Your task to perform on an android device: turn off notifications settings in the gmail app Image 0: 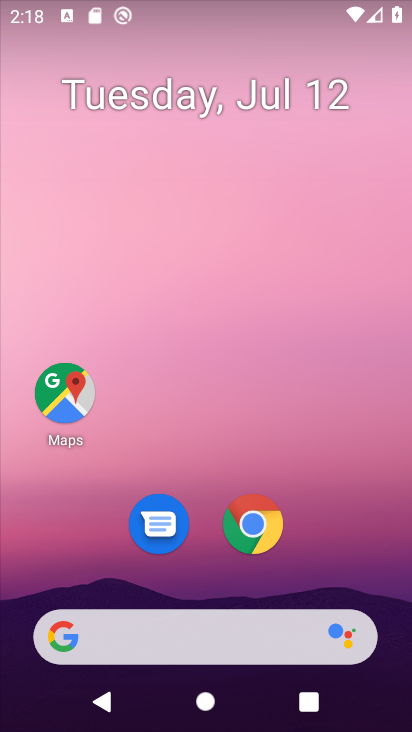
Step 0: drag from (322, 542) to (276, 55)
Your task to perform on an android device: turn off notifications settings in the gmail app Image 1: 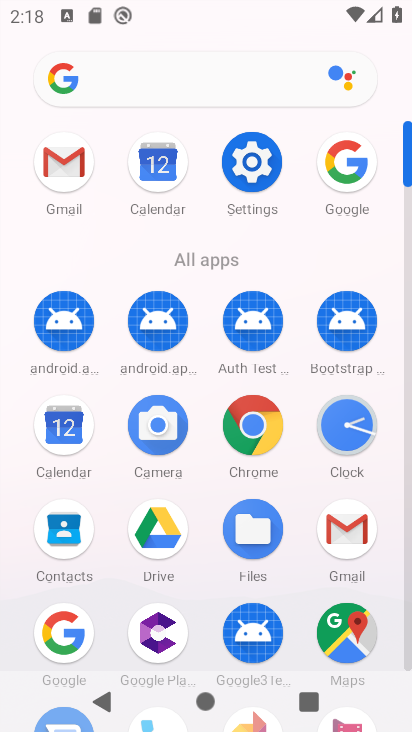
Step 1: click (50, 166)
Your task to perform on an android device: turn off notifications settings in the gmail app Image 2: 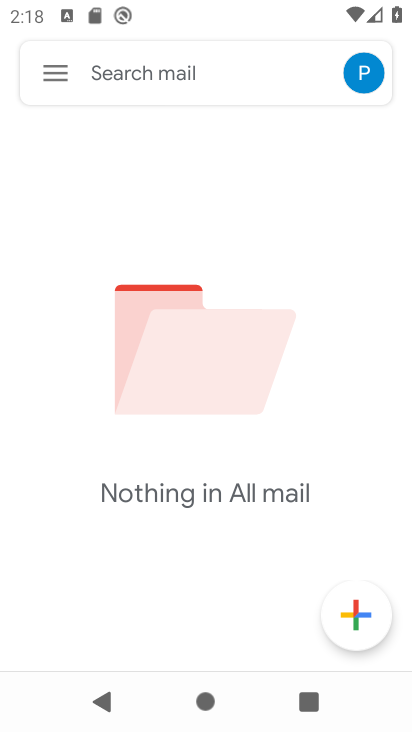
Step 2: click (59, 70)
Your task to perform on an android device: turn off notifications settings in the gmail app Image 3: 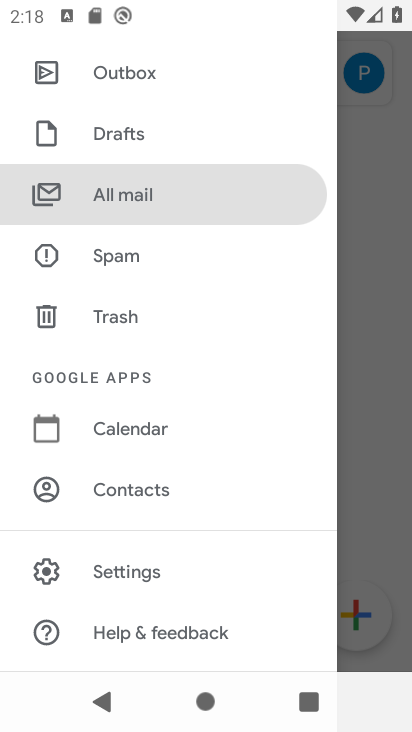
Step 3: click (139, 579)
Your task to perform on an android device: turn off notifications settings in the gmail app Image 4: 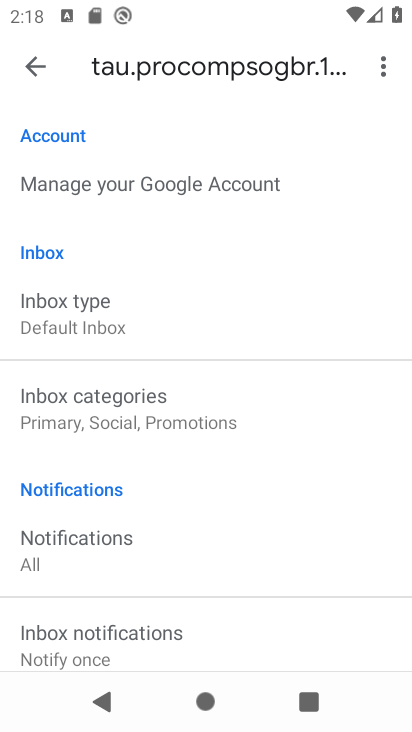
Step 4: drag from (162, 509) to (216, 129)
Your task to perform on an android device: turn off notifications settings in the gmail app Image 5: 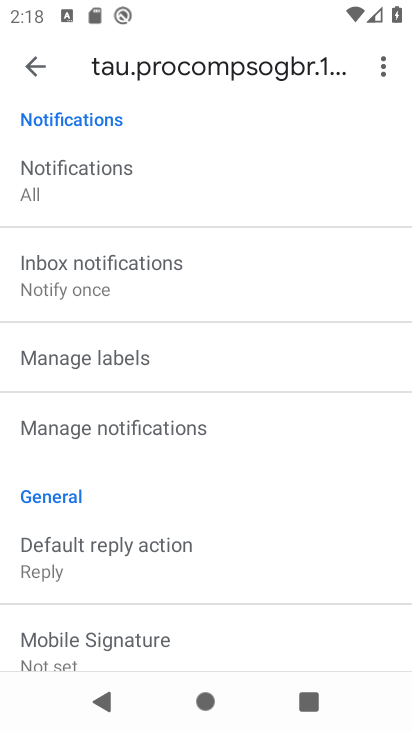
Step 5: click (182, 425)
Your task to perform on an android device: turn off notifications settings in the gmail app Image 6: 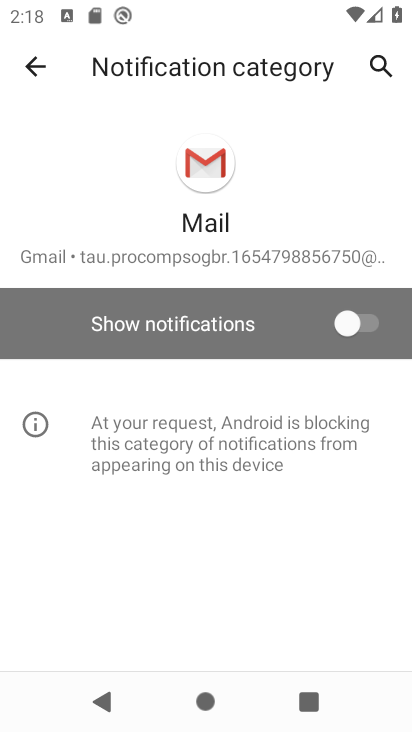
Step 6: task complete